Your task to perform on an android device: What's on my calendar today? Image 0: 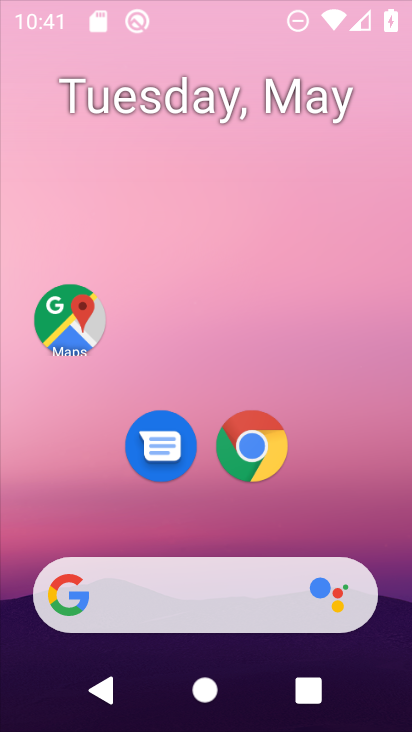
Step 0: drag from (241, 636) to (268, 196)
Your task to perform on an android device: What's on my calendar today? Image 1: 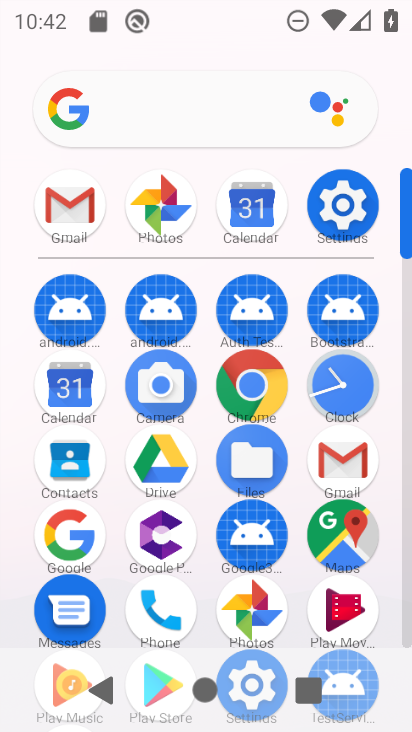
Step 1: click (80, 394)
Your task to perform on an android device: What's on my calendar today? Image 2: 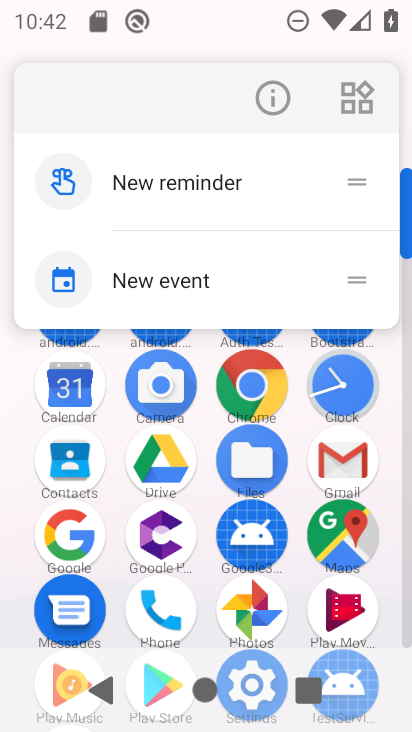
Step 2: click (76, 400)
Your task to perform on an android device: What's on my calendar today? Image 3: 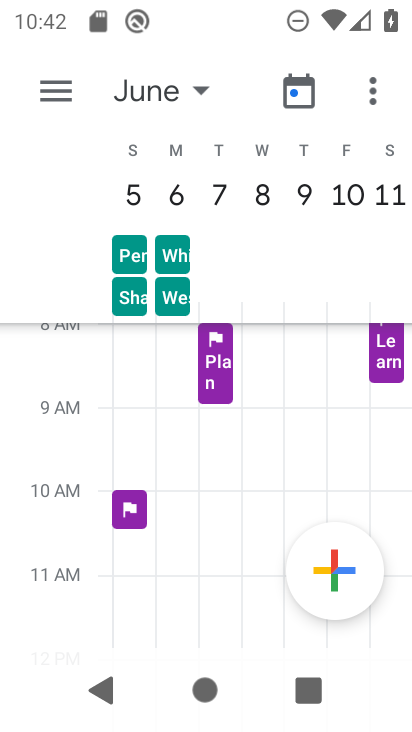
Step 3: drag from (158, 182) to (400, 288)
Your task to perform on an android device: What's on my calendar today? Image 4: 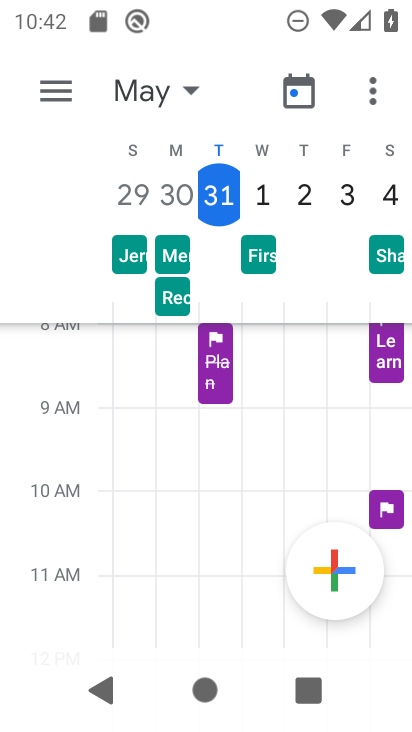
Step 4: click (50, 85)
Your task to perform on an android device: What's on my calendar today? Image 5: 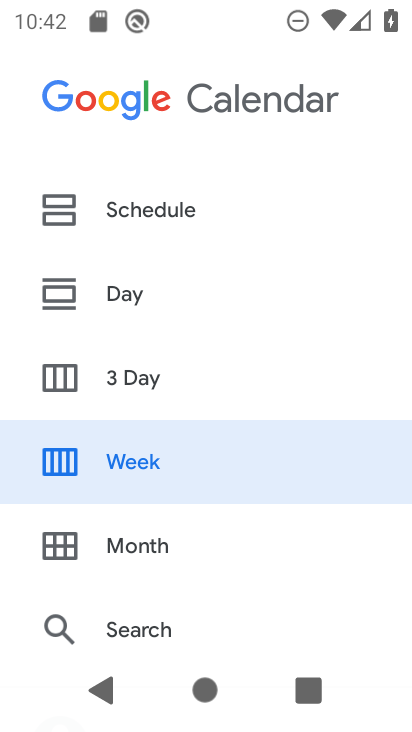
Step 5: click (137, 316)
Your task to perform on an android device: What's on my calendar today? Image 6: 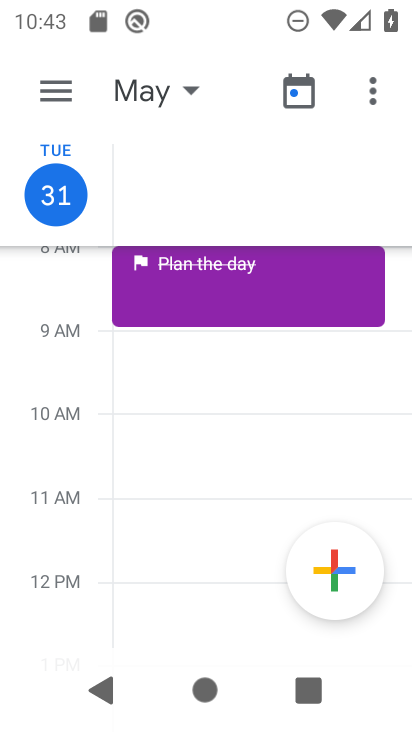
Step 6: task complete